Your task to perform on an android device: Open settings on Google Maps Image 0: 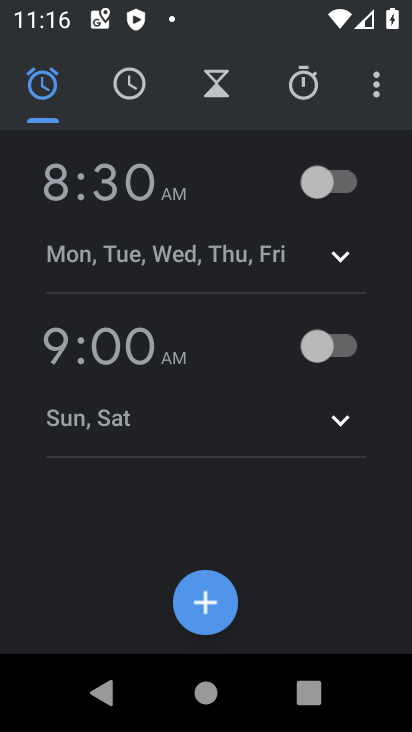
Step 0: press home button
Your task to perform on an android device: Open settings on Google Maps Image 1: 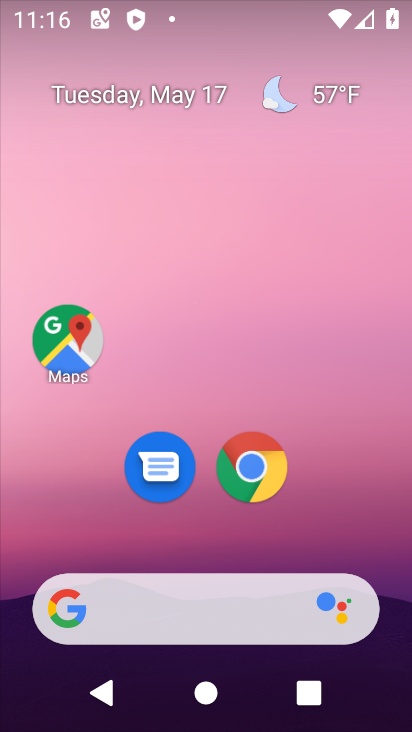
Step 1: drag from (227, 648) to (282, 205)
Your task to perform on an android device: Open settings on Google Maps Image 2: 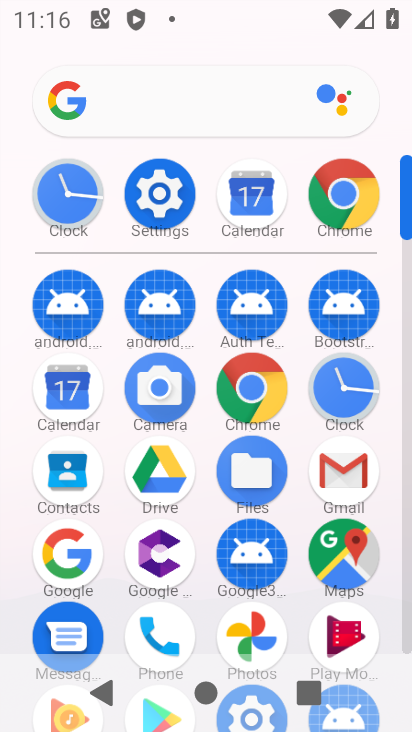
Step 2: click (347, 539)
Your task to perform on an android device: Open settings on Google Maps Image 3: 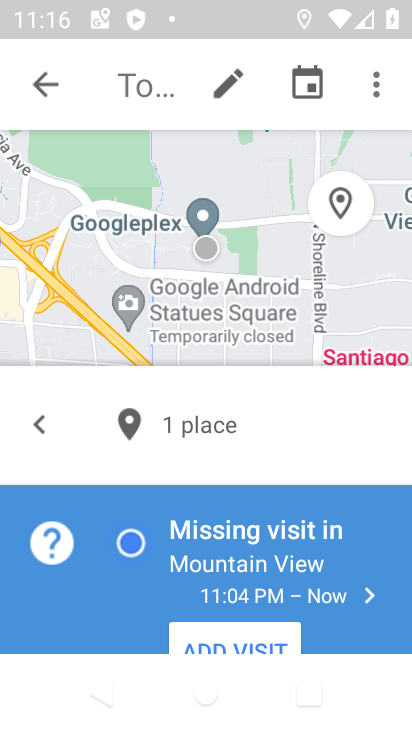
Step 3: click (21, 96)
Your task to perform on an android device: Open settings on Google Maps Image 4: 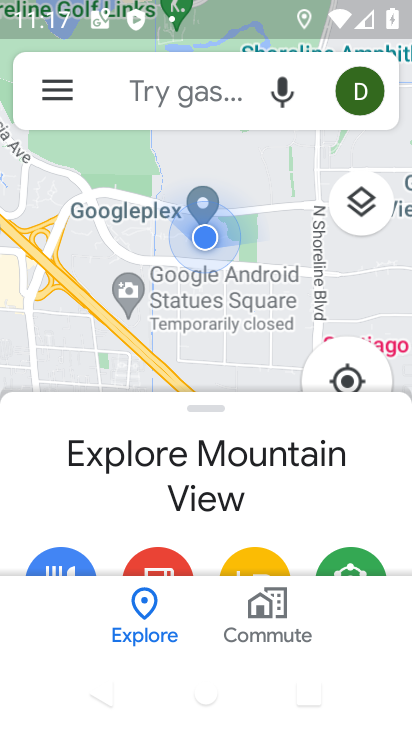
Step 4: click (59, 112)
Your task to perform on an android device: Open settings on Google Maps Image 5: 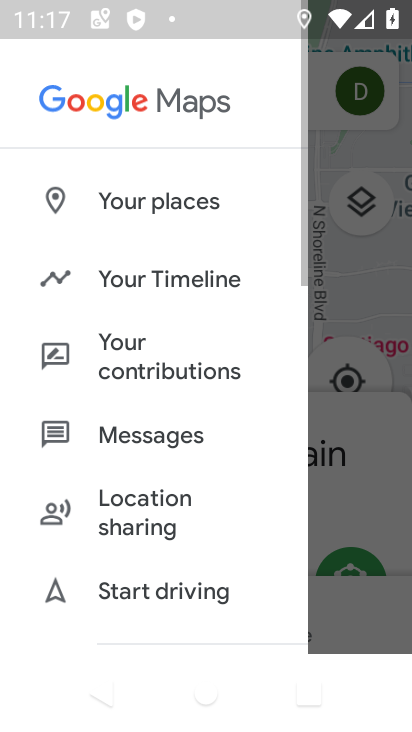
Step 5: drag from (129, 518) to (277, 198)
Your task to perform on an android device: Open settings on Google Maps Image 6: 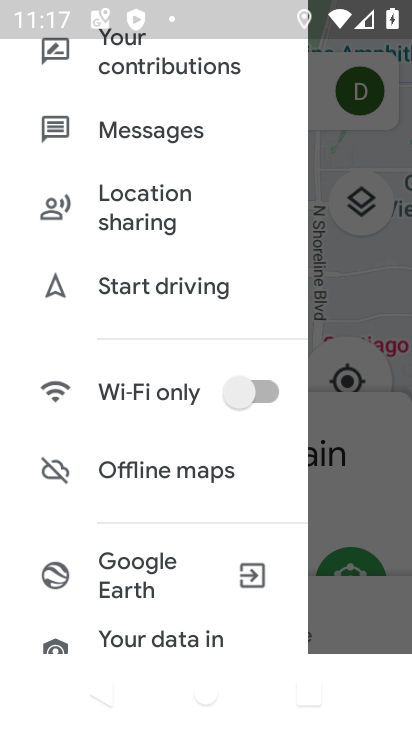
Step 6: drag from (158, 521) to (262, 241)
Your task to perform on an android device: Open settings on Google Maps Image 7: 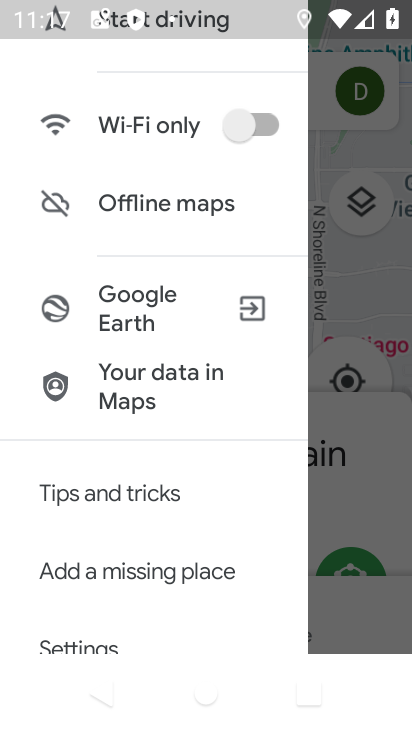
Step 7: click (99, 630)
Your task to perform on an android device: Open settings on Google Maps Image 8: 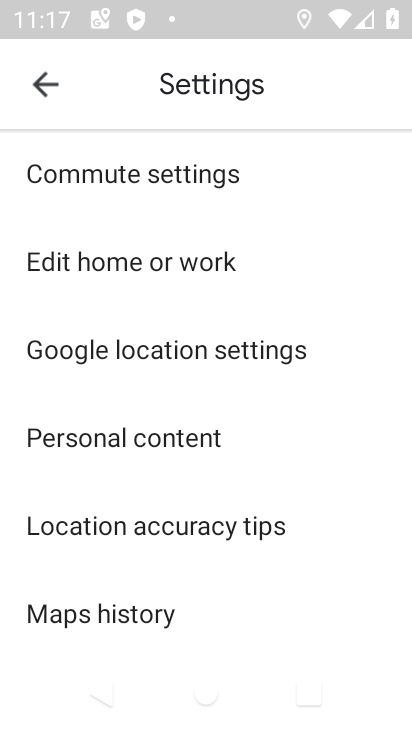
Step 8: task complete